Your task to perform on an android device: uninstall "YouTube Kids" Image 0: 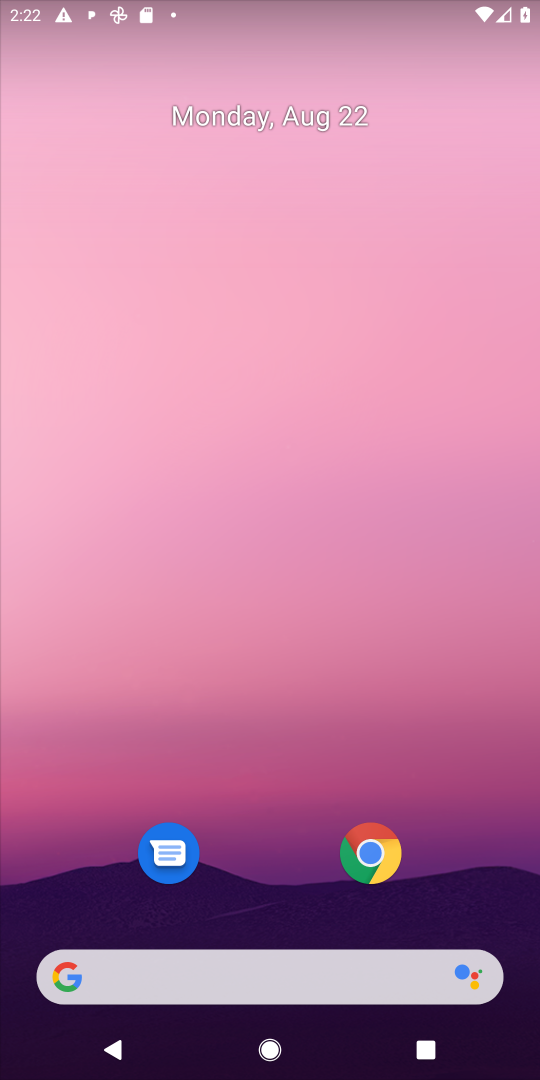
Step 0: drag from (288, 935) to (288, 235)
Your task to perform on an android device: uninstall "YouTube Kids" Image 1: 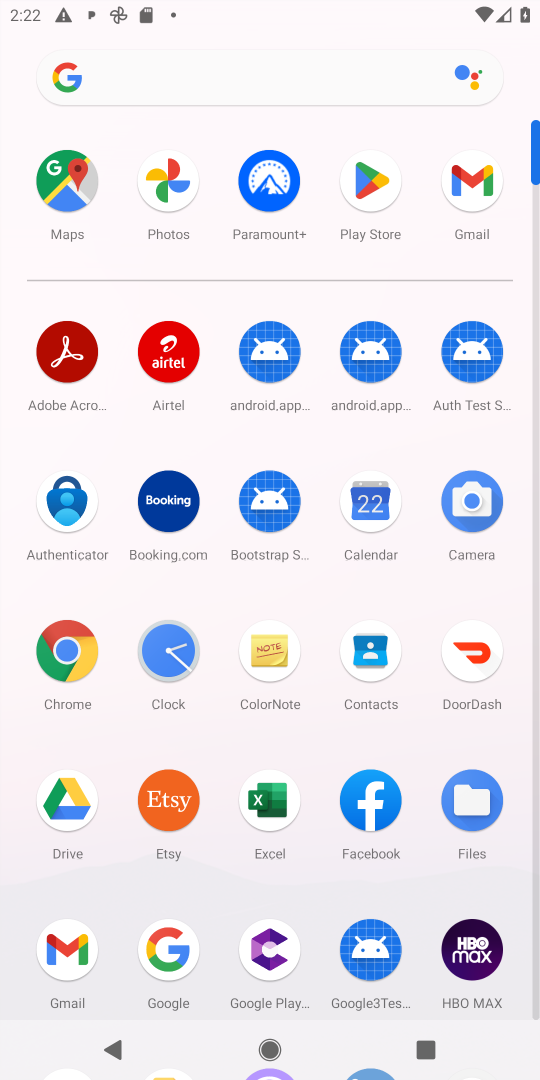
Step 1: click (361, 176)
Your task to perform on an android device: uninstall "YouTube Kids" Image 2: 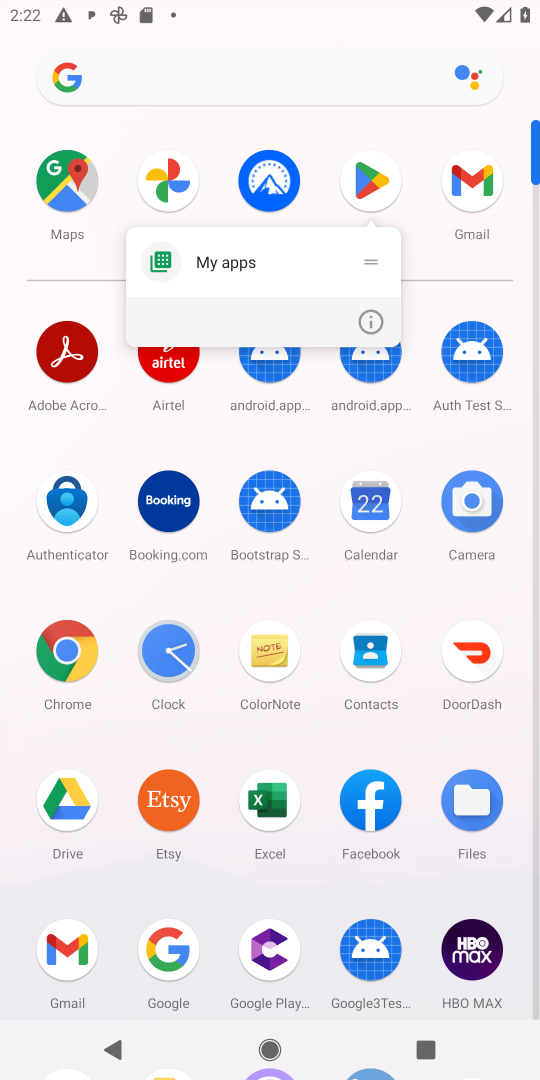
Step 2: click (359, 178)
Your task to perform on an android device: uninstall "YouTube Kids" Image 3: 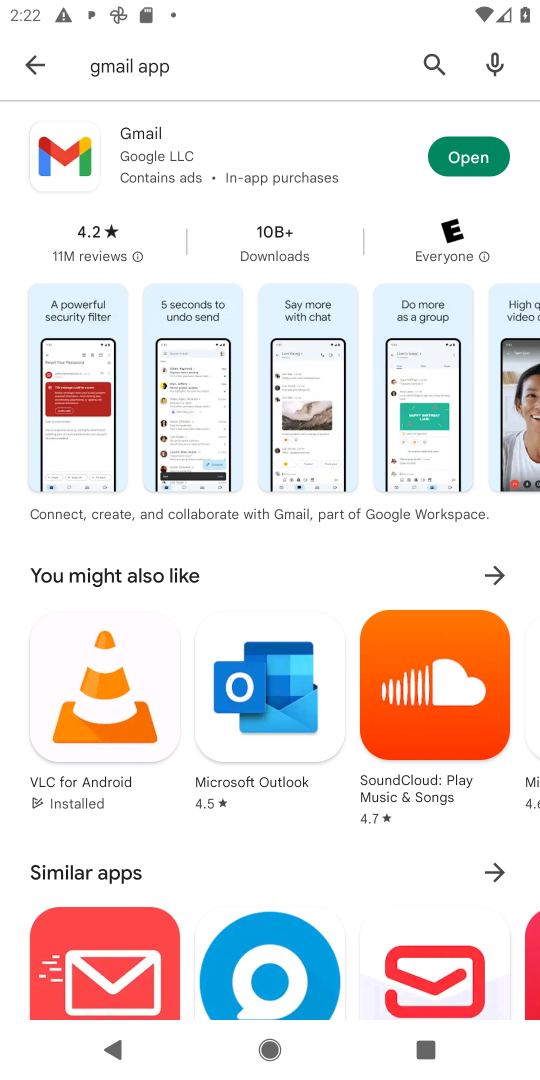
Step 3: click (49, 68)
Your task to perform on an android device: uninstall "YouTube Kids" Image 4: 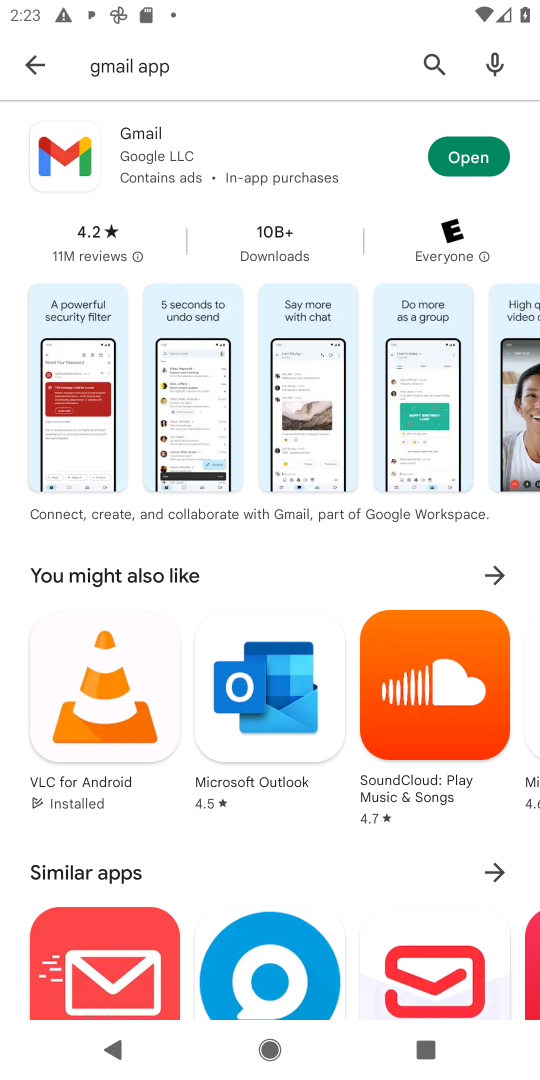
Step 4: click (192, 56)
Your task to perform on an android device: uninstall "YouTube Kids" Image 5: 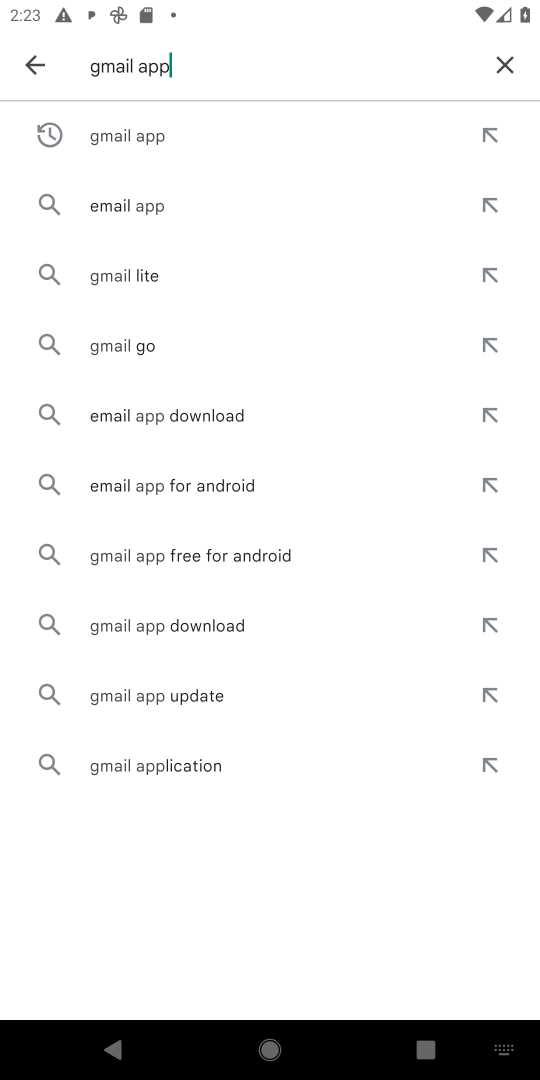
Step 5: click (51, 72)
Your task to perform on an android device: uninstall "YouTube Kids" Image 6: 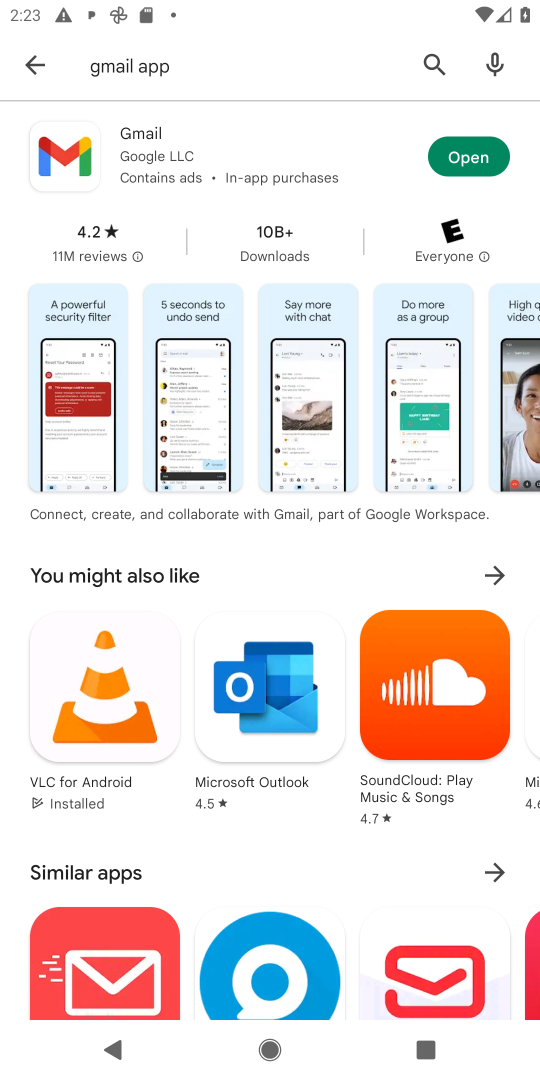
Step 6: click (51, 74)
Your task to perform on an android device: uninstall "YouTube Kids" Image 7: 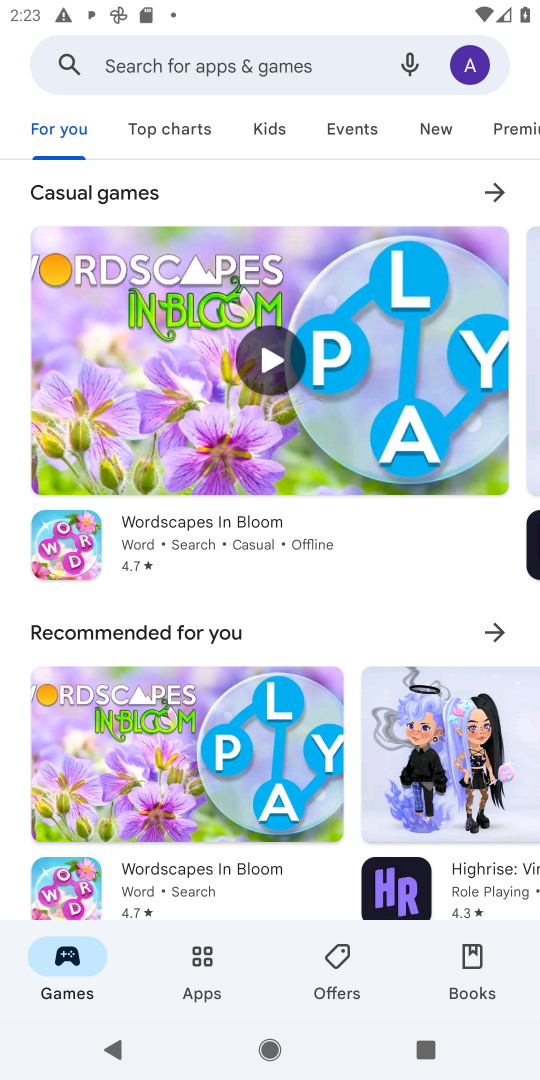
Step 7: click (233, 53)
Your task to perform on an android device: uninstall "YouTube Kids" Image 8: 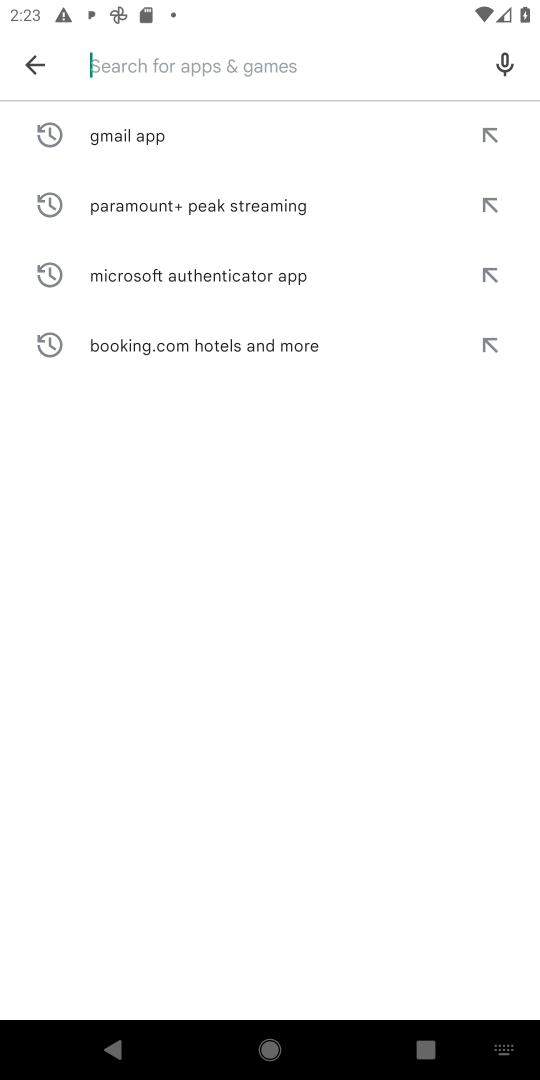
Step 8: type "YouTube Kids "
Your task to perform on an android device: uninstall "YouTube Kids" Image 9: 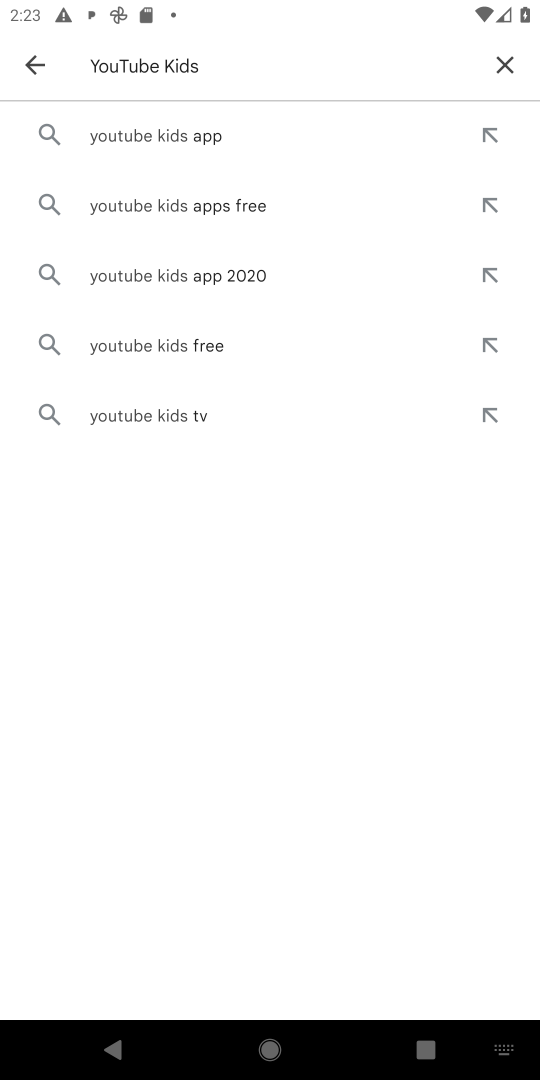
Step 9: click (147, 142)
Your task to perform on an android device: uninstall "YouTube Kids" Image 10: 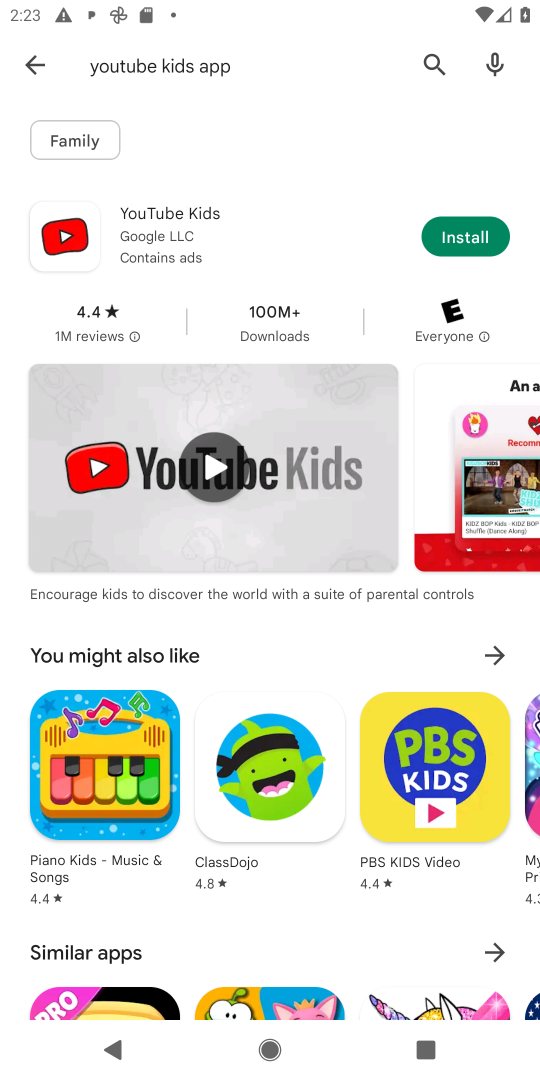
Step 10: click (453, 235)
Your task to perform on an android device: uninstall "YouTube Kids" Image 11: 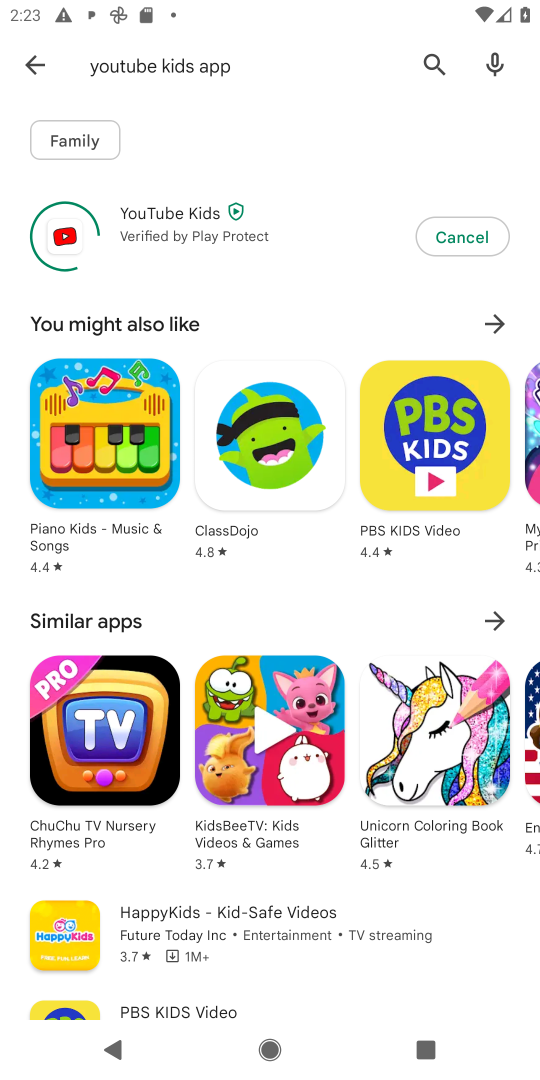
Step 11: click (478, 226)
Your task to perform on an android device: uninstall "YouTube Kids" Image 12: 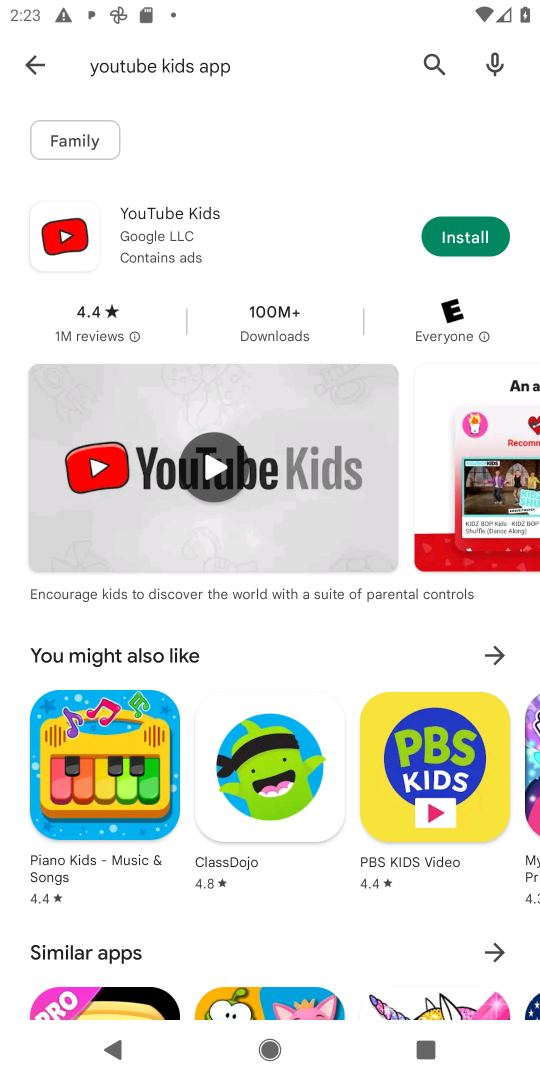
Step 12: click (190, 229)
Your task to perform on an android device: uninstall "YouTube Kids" Image 13: 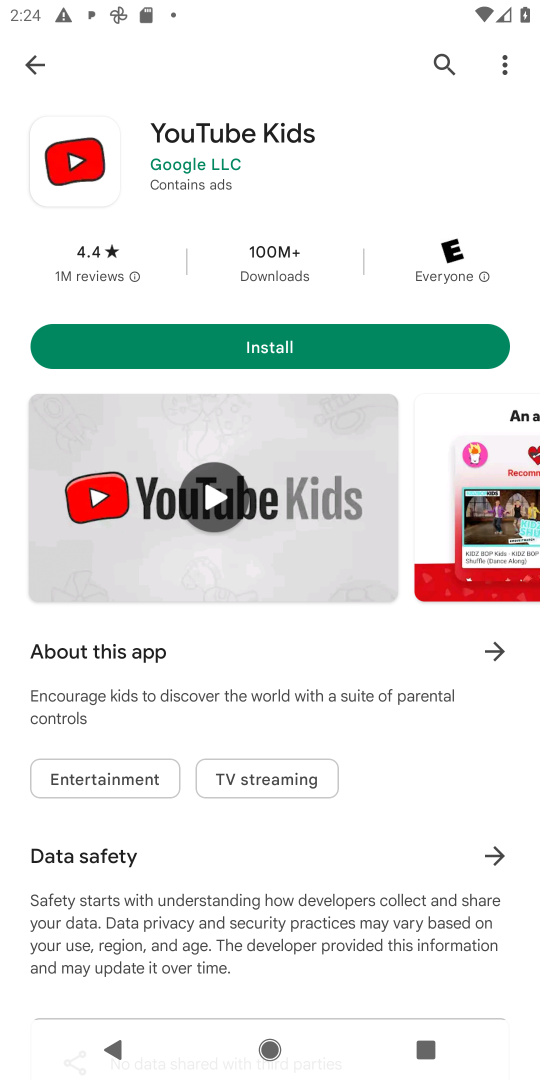
Step 13: task complete